Your task to perform on an android device: Open Google Chrome and click the shortcut for Amazon.com Image 0: 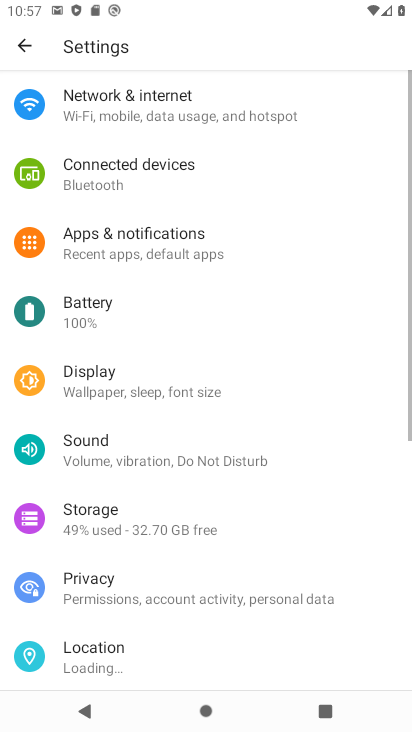
Step 0: drag from (224, 619) to (216, 365)
Your task to perform on an android device: Open Google Chrome and click the shortcut for Amazon.com Image 1: 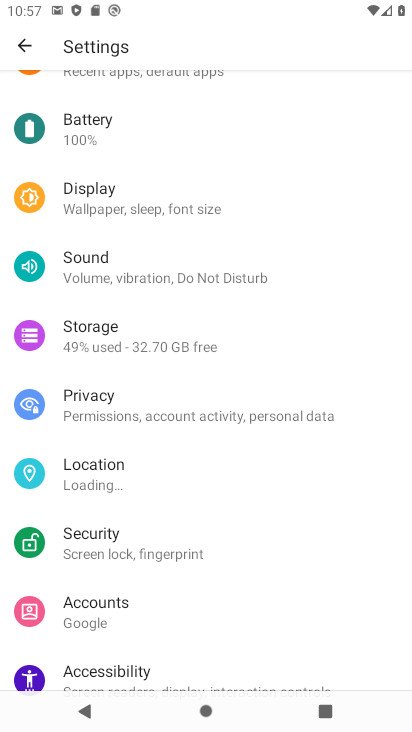
Step 1: press home button
Your task to perform on an android device: Open Google Chrome and click the shortcut for Amazon.com Image 2: 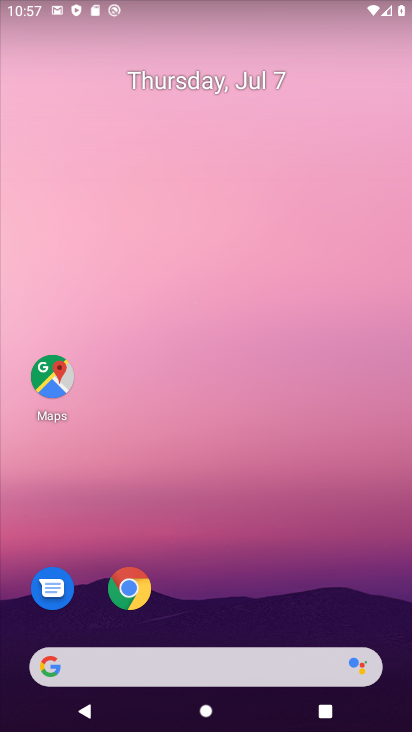
Step 2: drag from (192, 628) to (184, 92)
Your task to perform on an android device: Open Google Chrome and click the shortcut for Amazon.com Image 3: 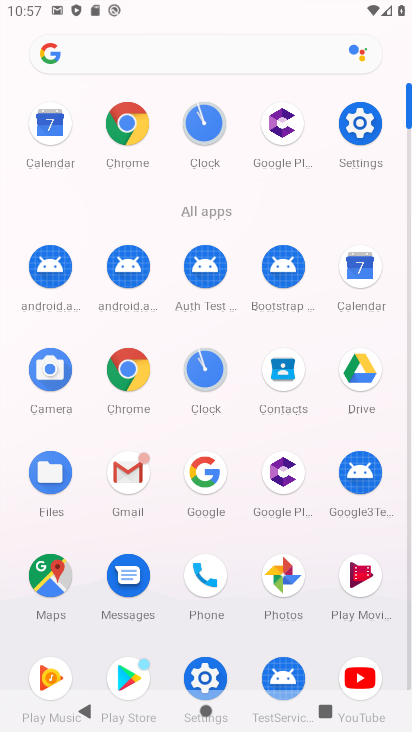
Step 3: click (131, 132)
Your task to perform on an android device: Open Google Chrome and click the shortcut for Amazon.com Image 4: 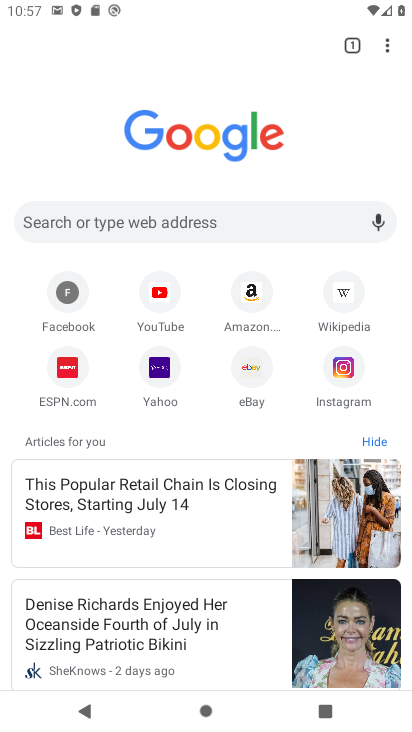
Step 4: click (249, 309)
Your task to perform on an android device: Open Google Chrome and click the shortcut for Amazon.com Image 5: 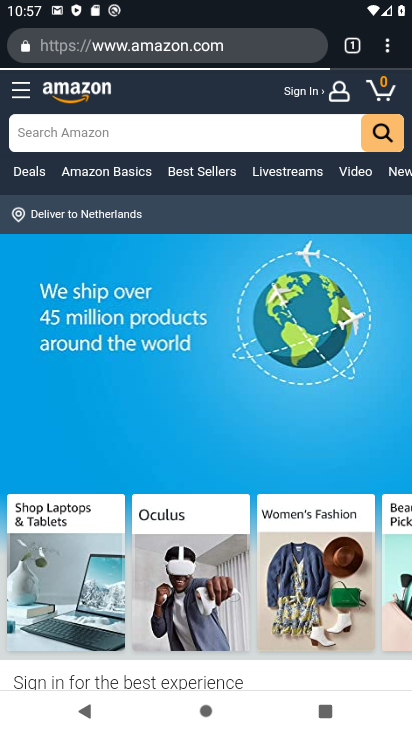
Step 5: task complete